Your task to perform on an android device: turn on location history Image 0: 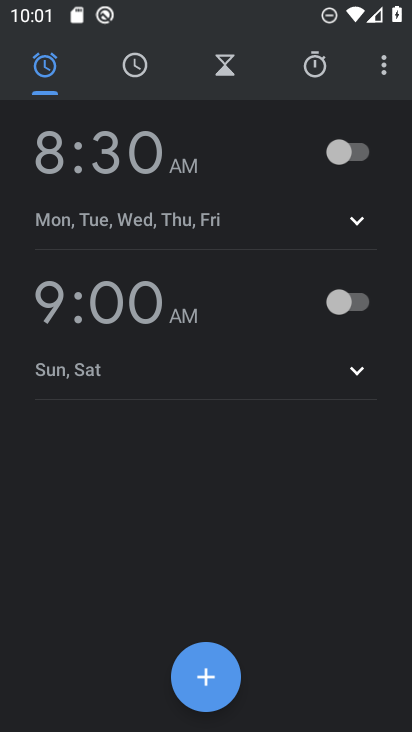
Step 0: press home button
Your task to perform on an android device: turn on location history Image 1: 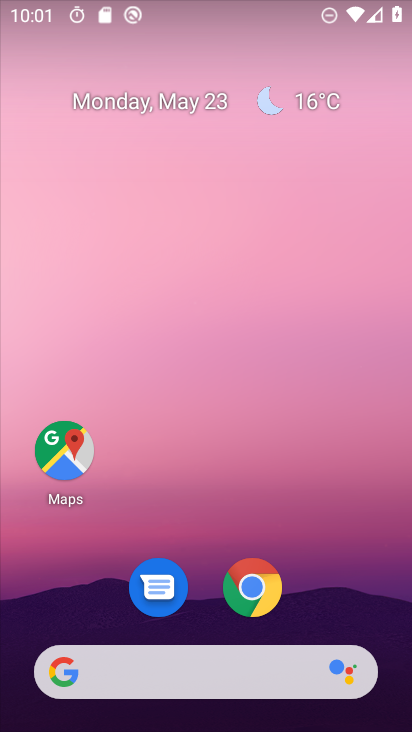
Step 1: drag from (184, 496) to (222, 5)
Your task to perform on an android device: turn on location history Image 2: 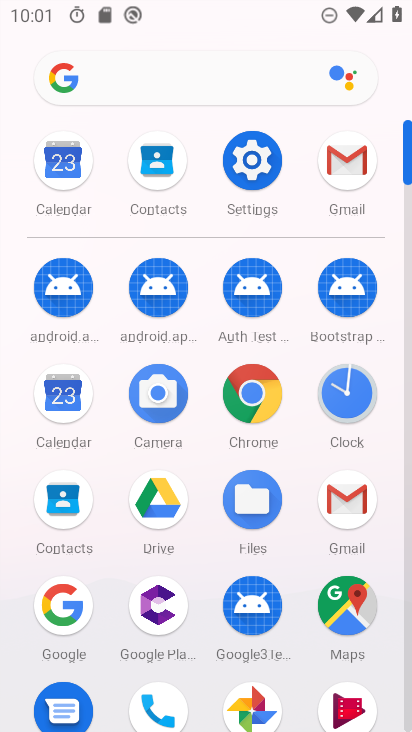
Step 2: click (251, 162)
Your task to perform on an android device: turn on location history Image 3: 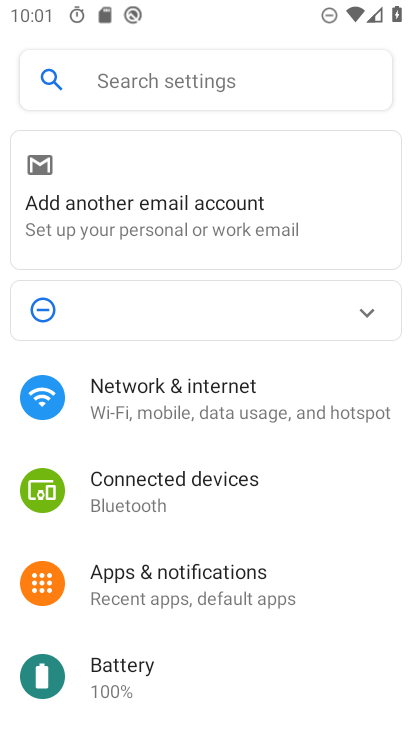
Step 3: drag from (184, 644) to (261, 175)
Your task to perform on an android device: turn on location history Image 4: 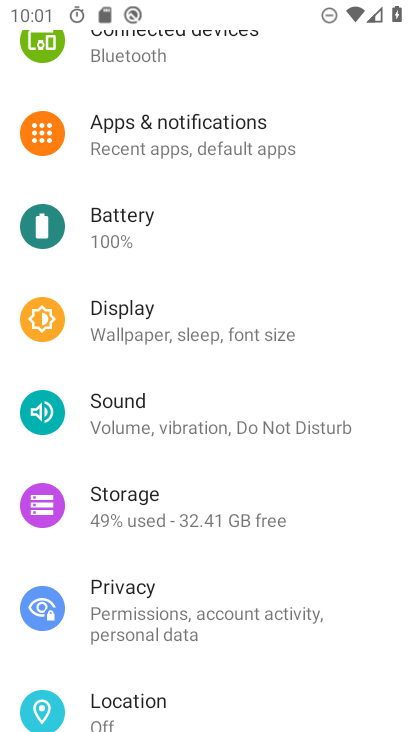
Step 4: click (136, 696)
Your task to perform on an android device: turn on location history Image 5: 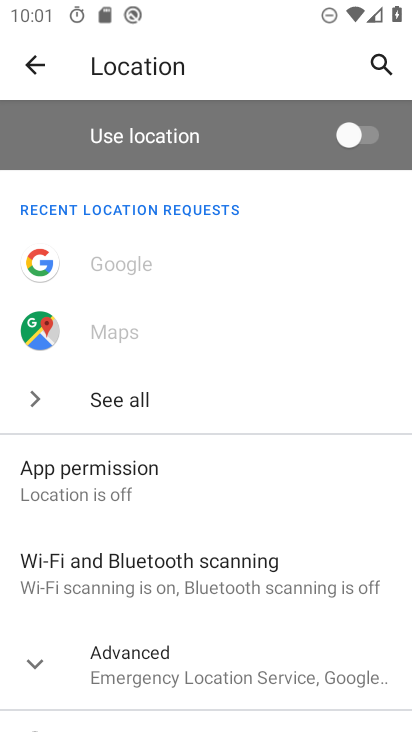
Step 5: click (131, 676)
Your task to perform on an android device: turn on location history Image 6: 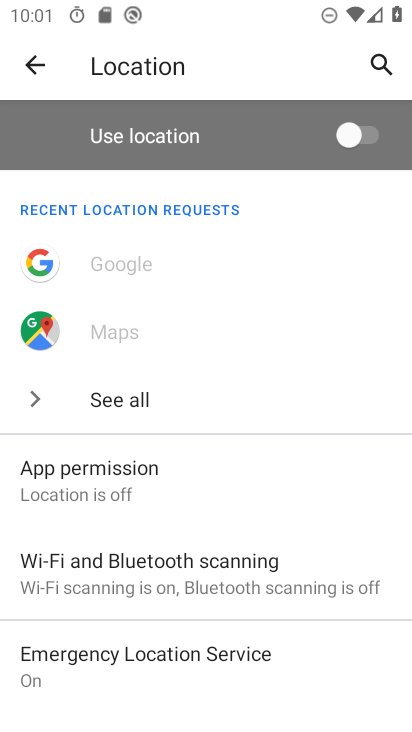
Step 6: drag from (185, 624) to (274, 116)
Your task to perform on an android device: turn on location history Image 7: 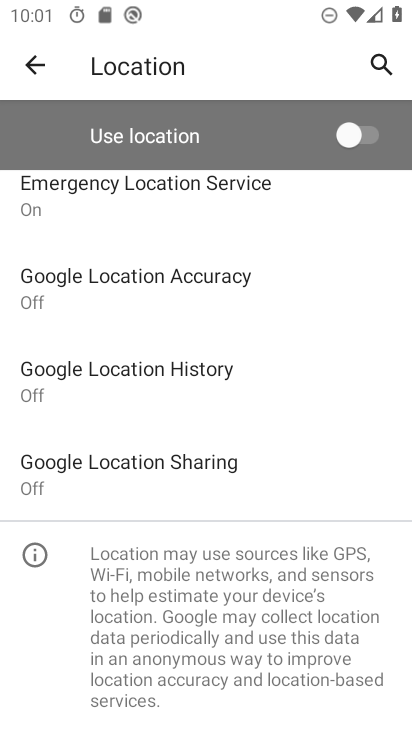
Step 7: click (178, 379)
Your task to perform on an android device: turn on location history Image 8: 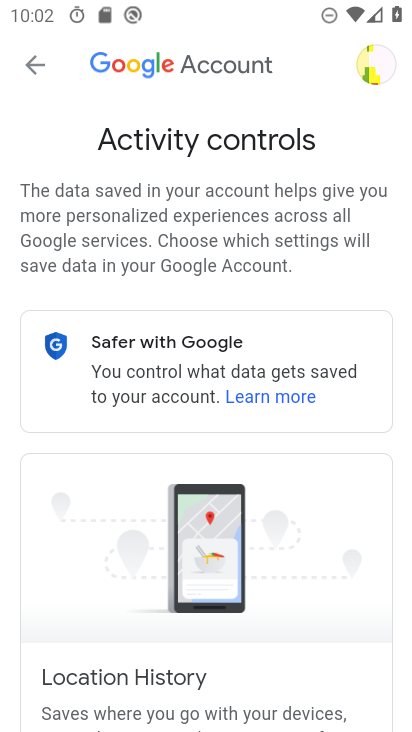
Step 8: task complete